Your task to perform on an android device: change notification settings in the gmail app Image 0: 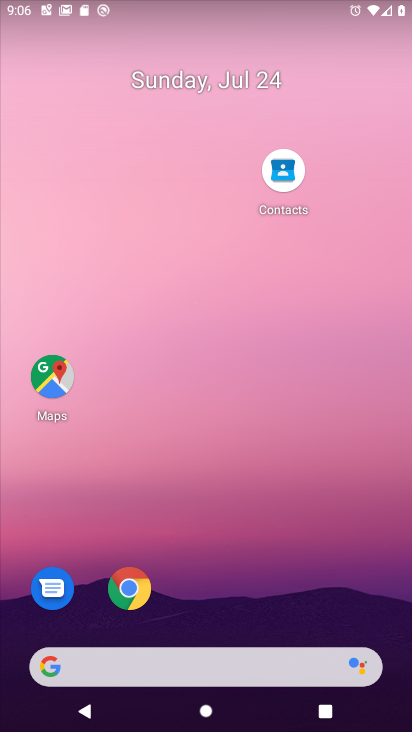
Step 0: press home button
Your task to perform on an android device: change notification settings in the gmail app Image 1: 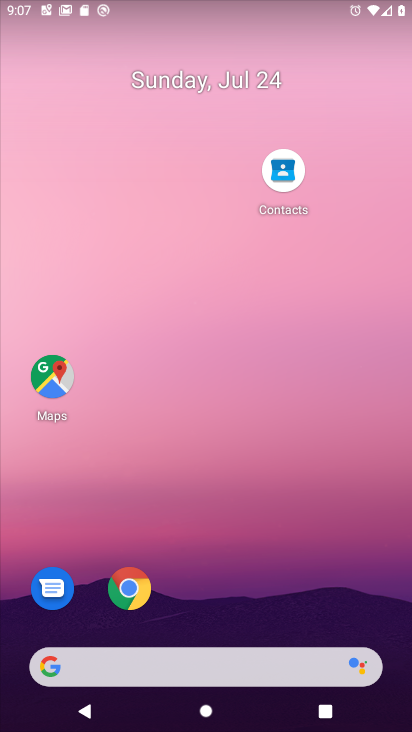
Step 1: drag from (206, 625) to (189, 1)
Your task to perform on an android device: change notification settings in the gmail app Image 2: 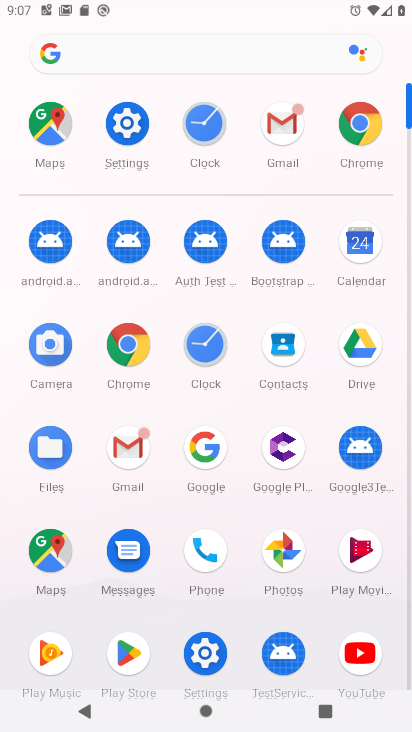
Step 2: click (283, 117)
Your task to perform on an android device: change notification settings in the gmail app Image 3: 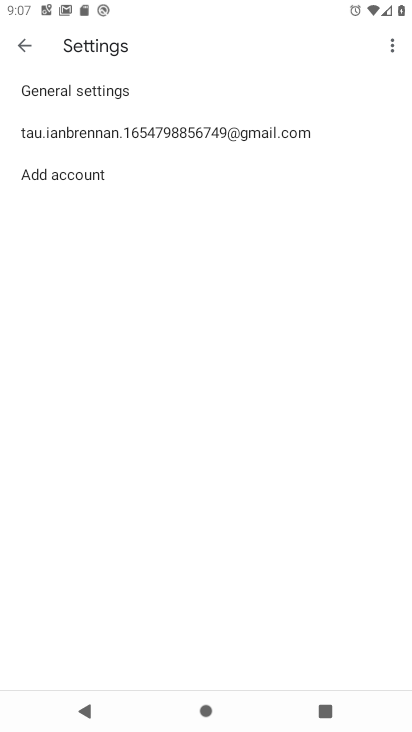
Step 3: click (85, 96)
Your task to perform on an android device: change notification settings in the gmail app Image 4: 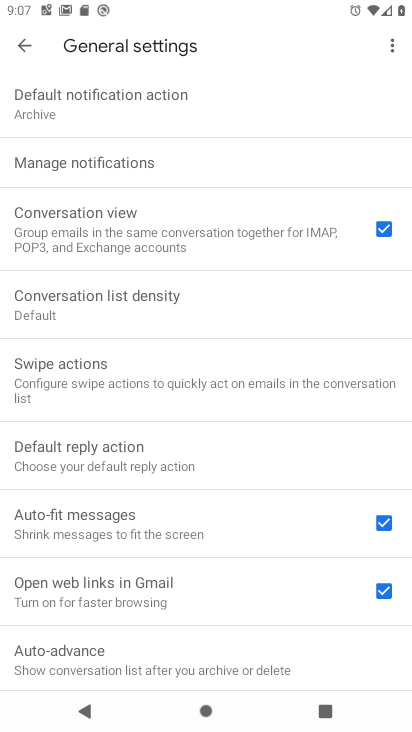
Step 4: click (157, 160)
Your task to perform on an android device: change notification settings in the gmail app Image 5: 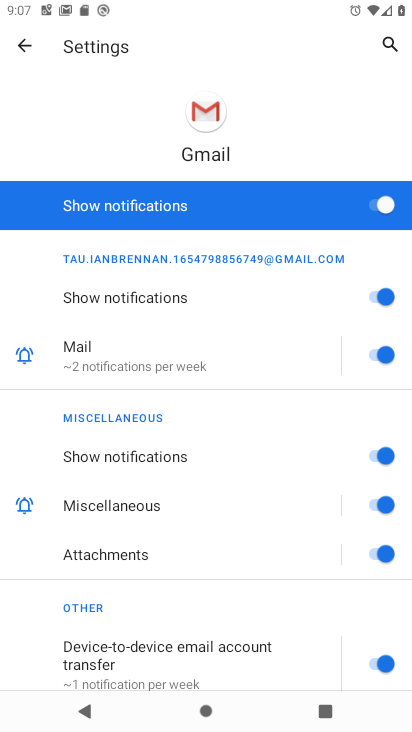
Step 5: click (378, 205)
Your task to perform on an android device: change notification settings in the gmail app Image 6: 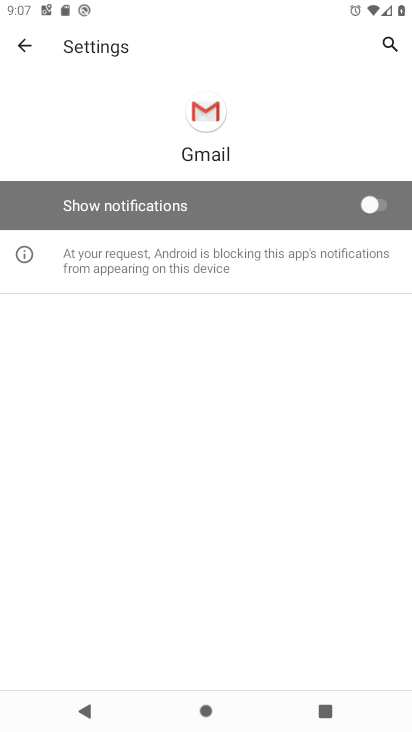
Step 6: task complete